Your task to perform on an android device: change the clock display to show seconds Image 0: 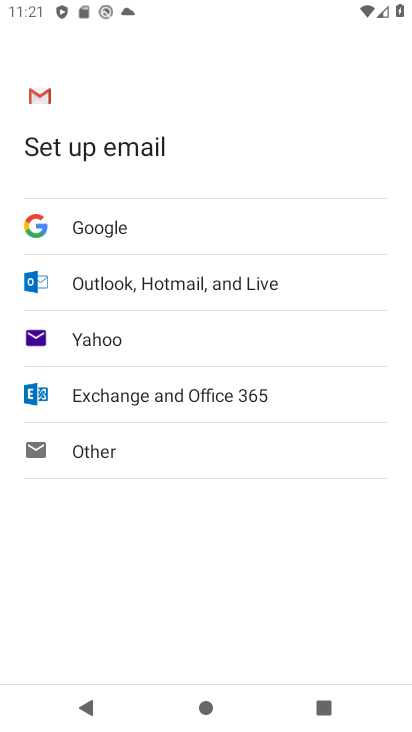
Step 0: press home button
Your task to perform on an android device: change the clock display to show seconds Image 1: 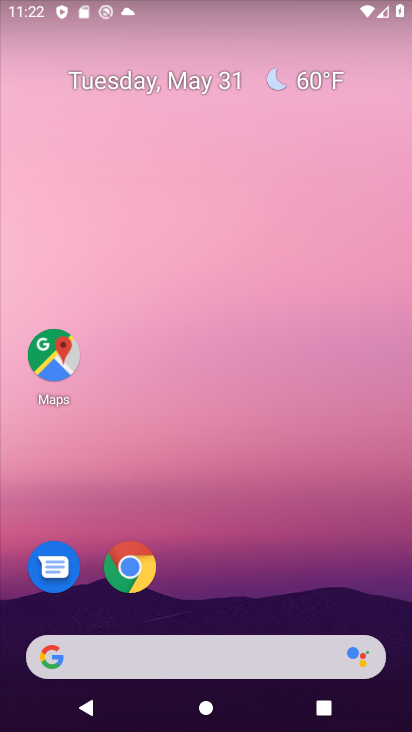
Step 1: drag from (205, 654) to (149, 200)
Your task to perform on an android device: change the clock display to show seconds Image 2: 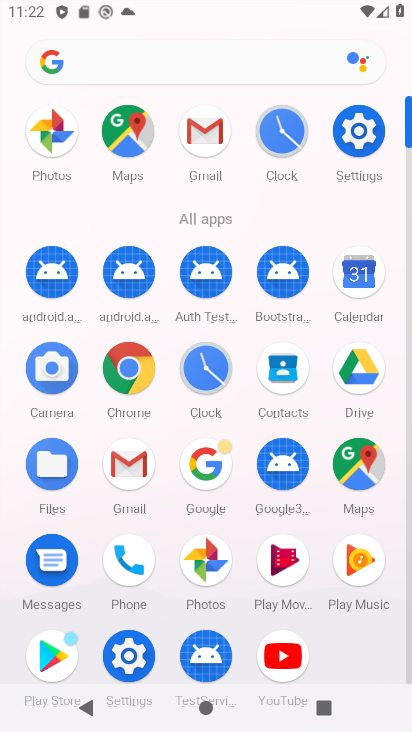
Step 2: click (219, 370)
Your task to perform on an android device: change the clock display to show seconds Image 3: 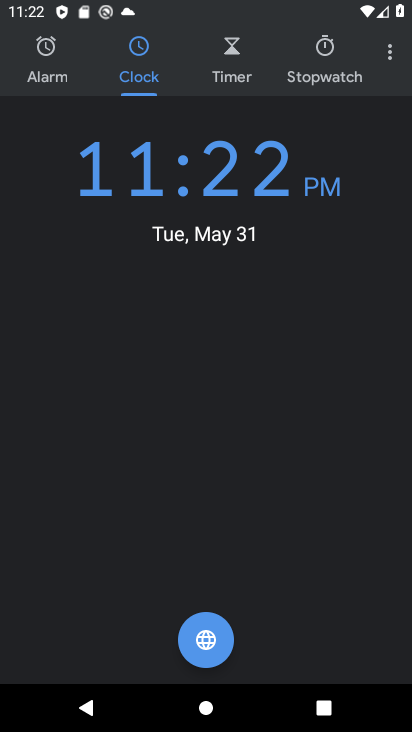
Step 3: click (385, 55)
Your task to perform on an android device: change the clock display to show seconds Image 4: 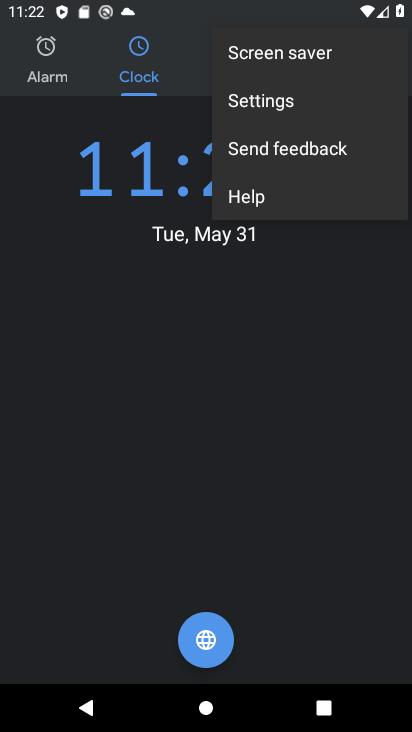
Step 4: click (287, 105)
Your task to perform on an android device: change the clock display to show seconds Image 5: 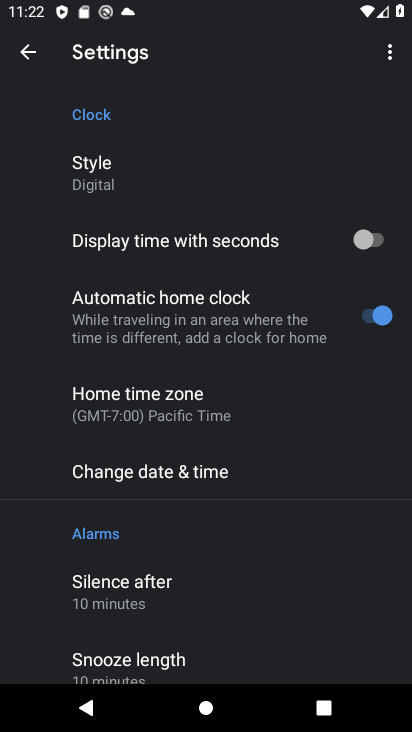
Step 5: click (375, 243)
Your task to perform on an android device: change the clock display to show seconds Image 6: 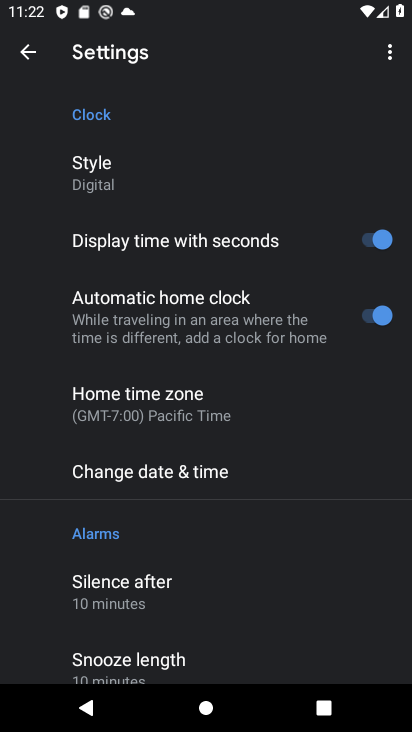
Step 6: task complete